Your task to perform on an android device: visit the assistant section in the google photos Image 0: 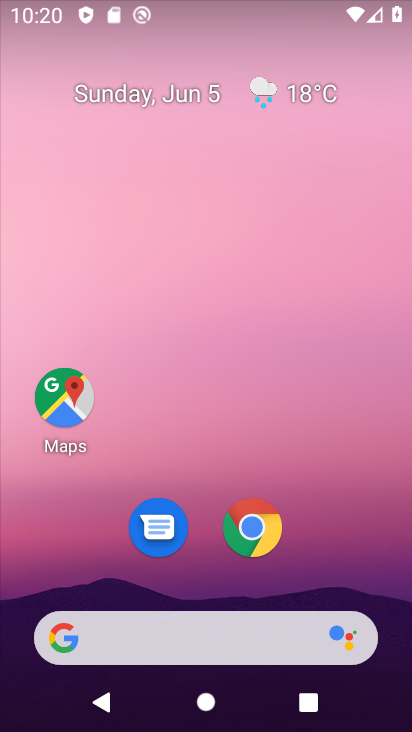
Step 0: drag from (387, 610) to (298, 81)
Your task to perform on an android device: visit the assistant section in the google photos Image 1: 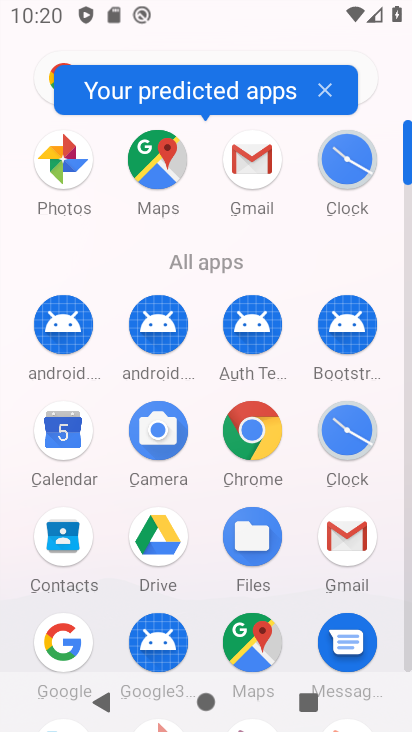
Step 1: click (48, 176)
Your task to perform on an android device: visit the assistant section in the google photos Image 2: 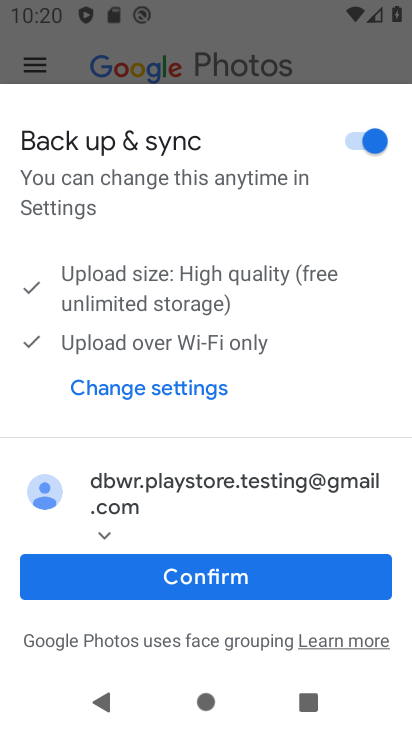
Step 2: click (188, 565)
Your task to perform on an android device: visit the assistant section in the google photos Image 3: 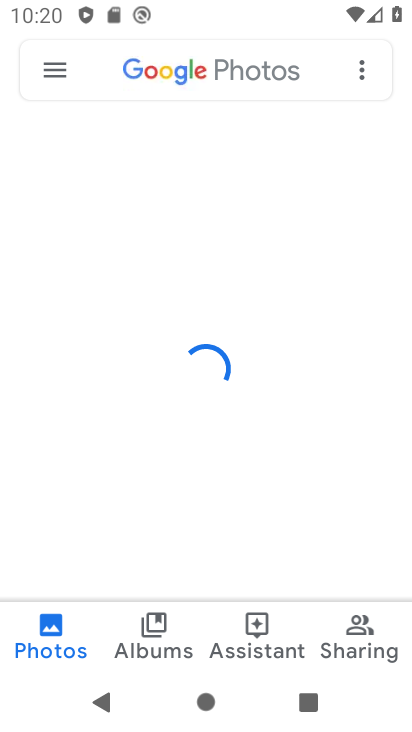
Step 3: click (264, 640)
Your task to perform on an android device: visit the assistant section in the google photos Image 4: 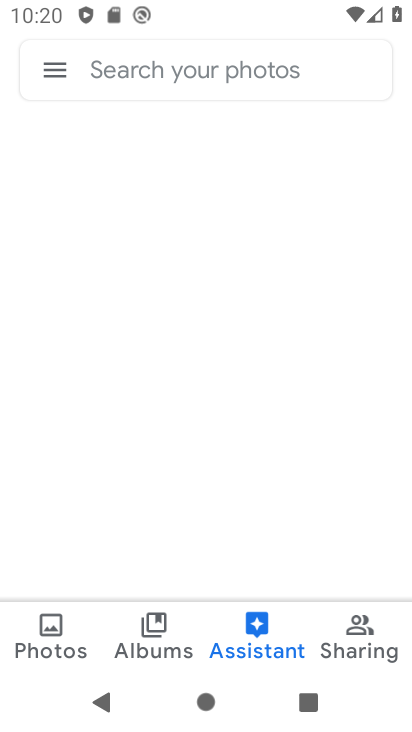
Step 4: task complete